Your task to perform on an android device: clear all cookies in the chrome app Image 0: 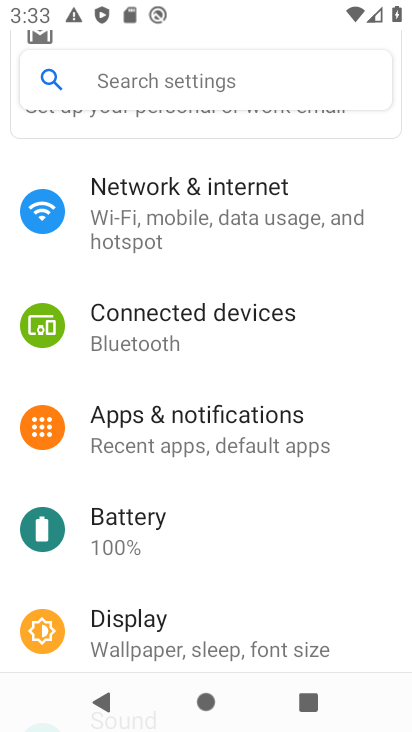
Step 0: press home button
Your task to perform on an android device: clear all cookies in the chrome app Image 1: 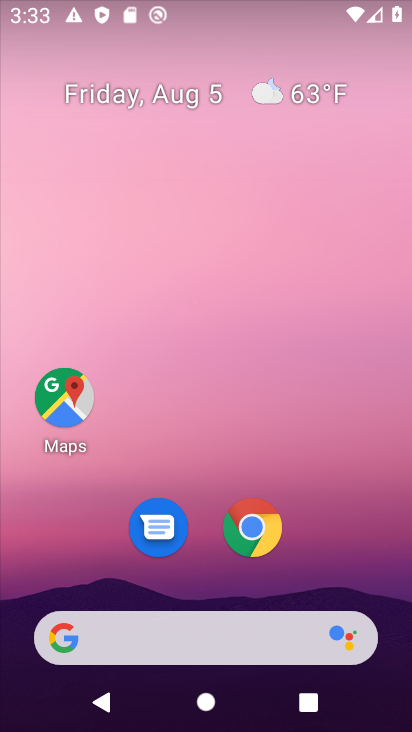
Step 1: drag from (221, 595) to (221, 84)
Your task to perform on an android device: clear all cookies in the chrome app Image 2: 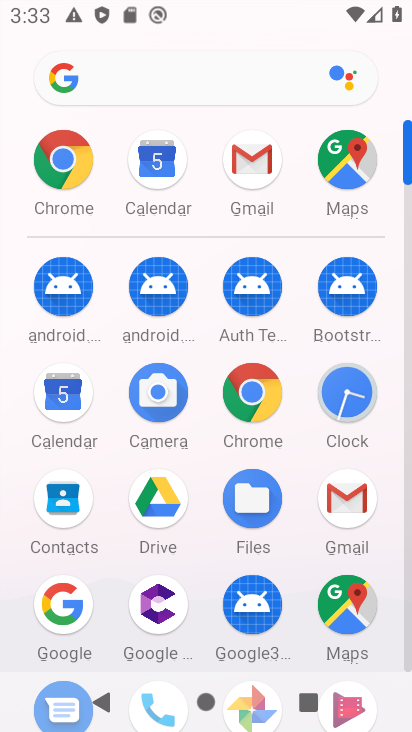
Step 2: click (255, 391)
Your task to perform on an android device: clear all cookies in the chrome app Image 3: 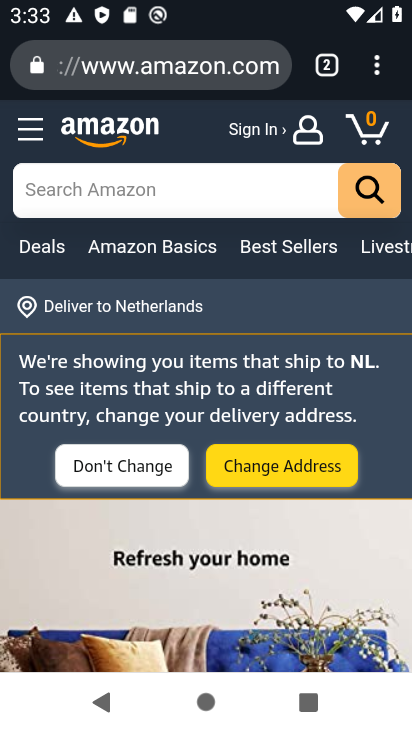
Step 3: click (378, 71)
Your task to perform on an android device: clear all cookies in the chrome app Image 4: 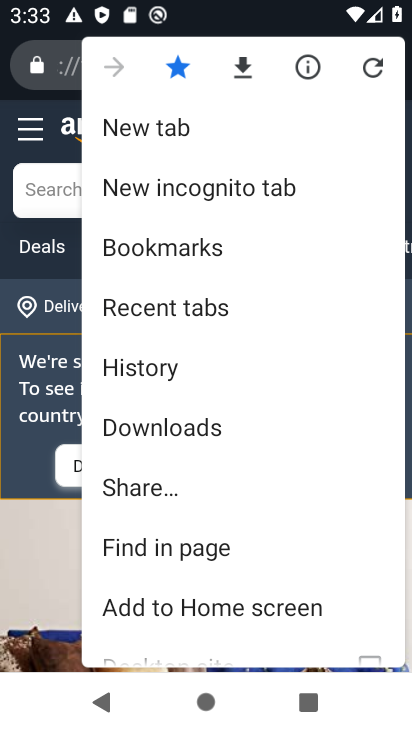
Step 4: drag from (175, 487) to (179, 209)
Your task to perform on an android device: clear all cookies in the chrome app Image 5: 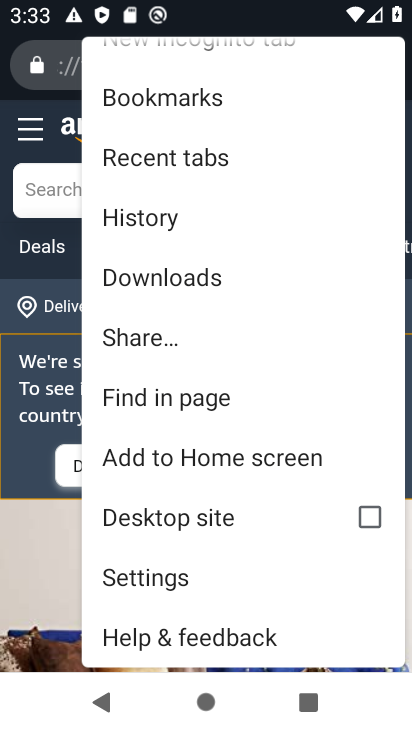
Step 5: click (156, 571)
Your task to perform on an android device: clear all cookies in the chrome app Image 6: 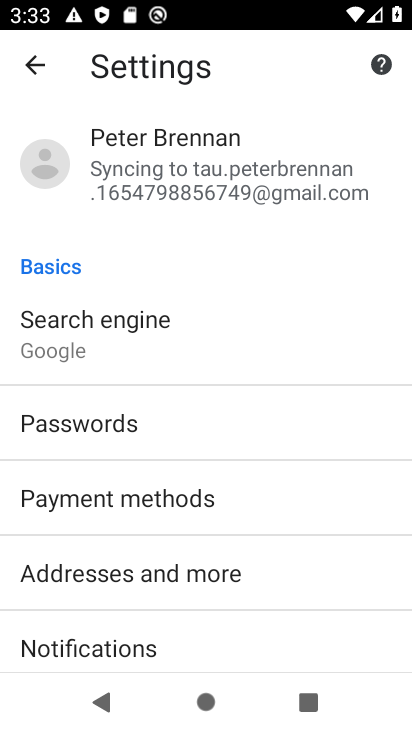
Step 6: drag from (149, 635) to (138, 277)
Your task to perform on an android device: clear all cookies in the chrome app Image 7: 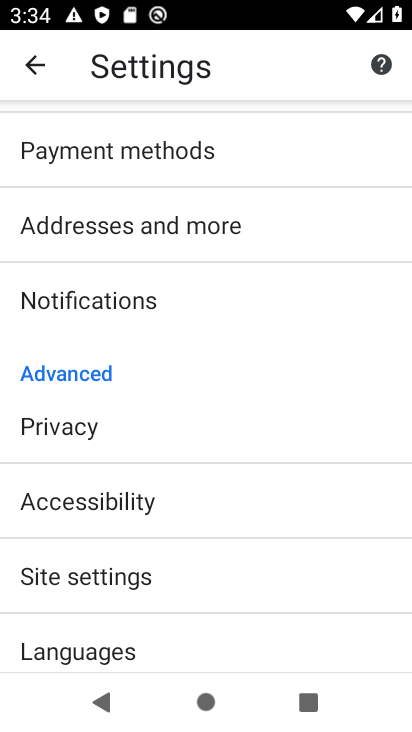
Step 7: drag from (137, 618) to (201, 294)
Your task to perform on an android device: clear all cookies in the chrome app Image 8: 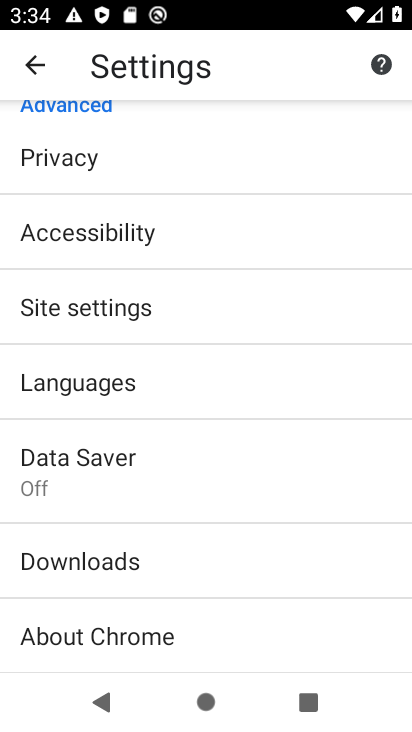
Step 8: drag from (177, 601) to (191, 341)
Your task to perform on an android device: clear all cookies in the chrome app Image 9: 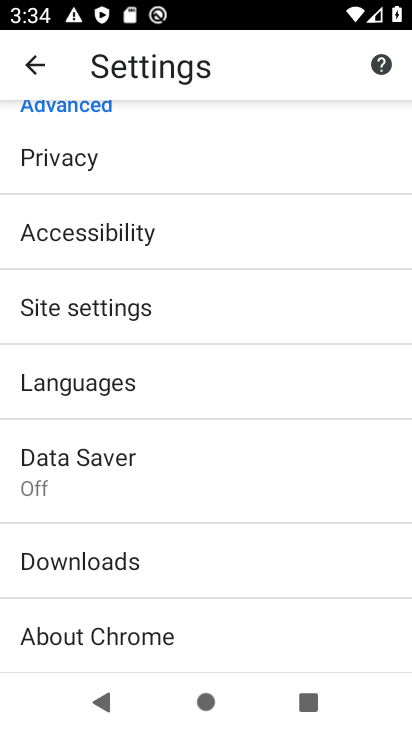
Step 9: drag from (165, 588) to (167, 286)
Your task to perform on an android device: clear all cookies in the chrome app Image 10: 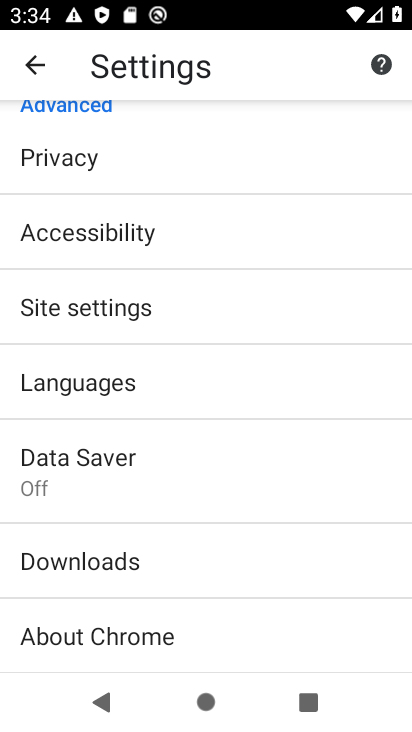
Step 10: drag from (123, 199) to (117, 609)
Your task to perform on an android device: clear all cookies in the chrome app Image 11: 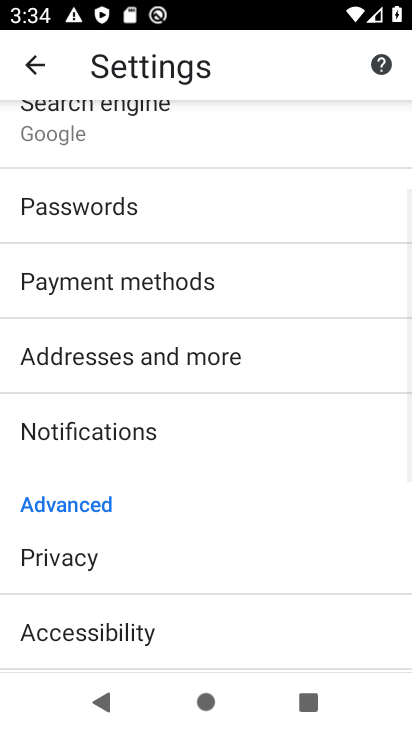
Step 11: drag from (158, 201) to (154, 348)
Your task to perform on an android device: clear all cookies in the chrome app Image 12: 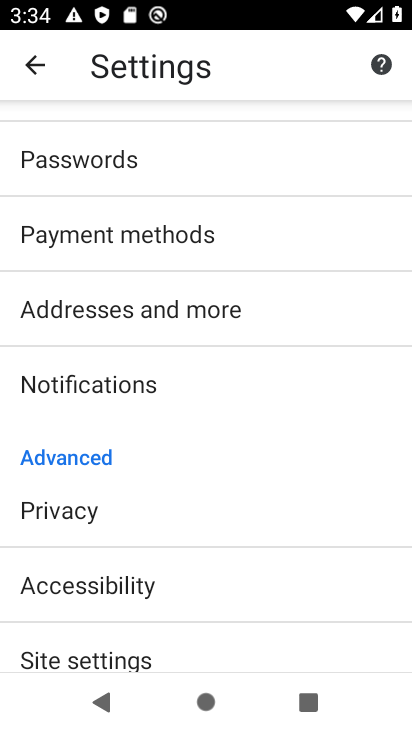
Step 12: click (75, 504)
Your task to perform on an android device: clear all cookies in the chrome app Image 13: 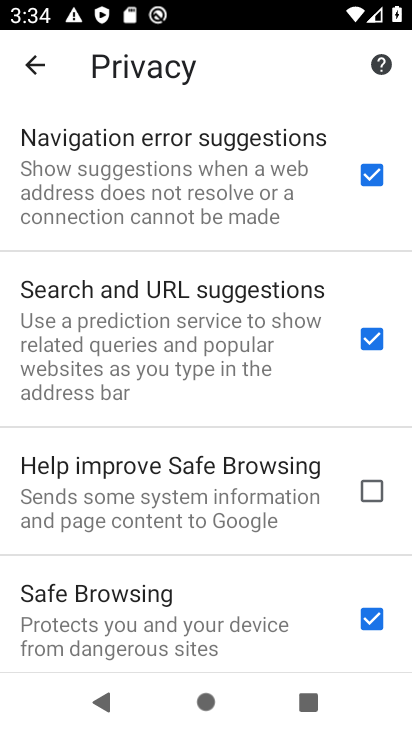
Step 13: drag from (200, 222) to (164, 607)
Your task to perform on an android device: clear all cookies in the chrome app Image 14: 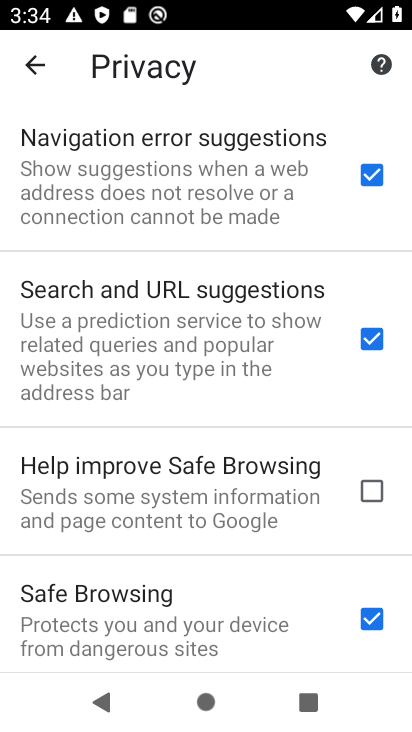
Step 14: drag from (257, 174) to (227, 591)
Your task to perform on an android device: clear all cookies in the chrome app Image 15: 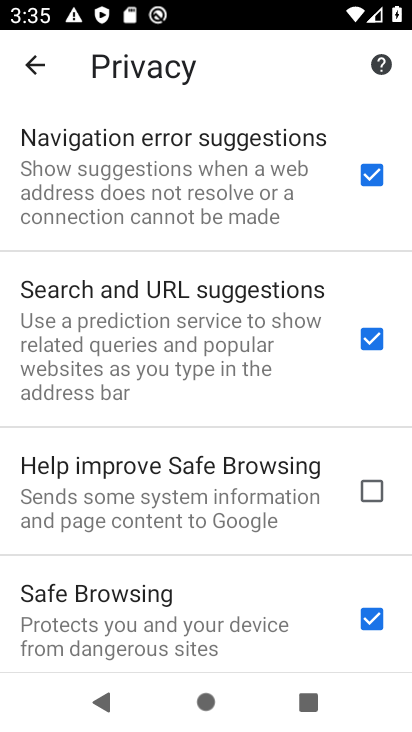
Step 15: drag from (128, 592) to (125, 225)
Your task to perform on an android device: clear all cookies in the chrome app Image 16: 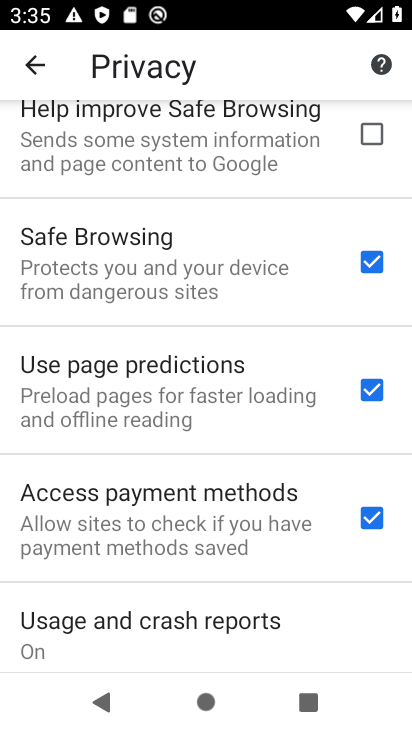
Step 16: drag from (144, 611) to (146, 299)
Your task to perform on an android device: clear all cookies in the chrome app Image 17: 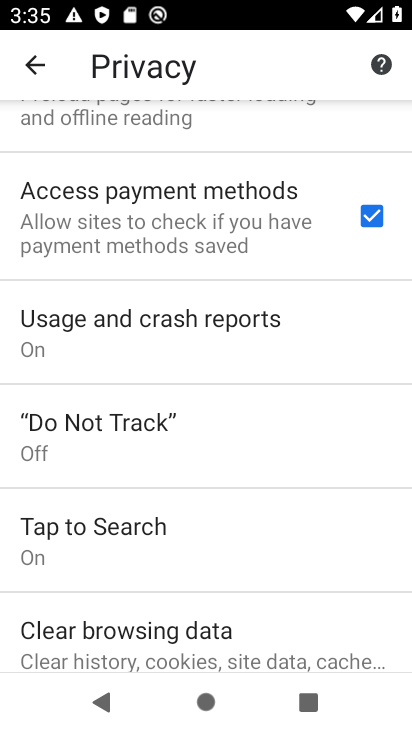
Step 17: drag from (131, 604) to (131, 382)
Your task to perform on an android device: clear all cookies in the chrome app Image 18: 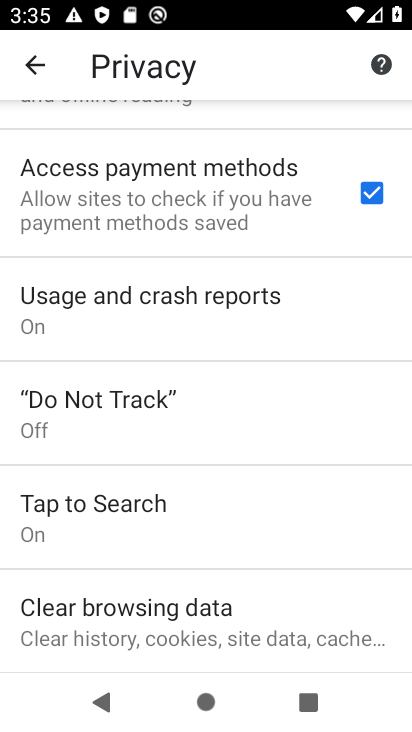
Step 18: click (147, 619)
Your task to perform on an android device: clear all cookies in the chrome app Image 19: 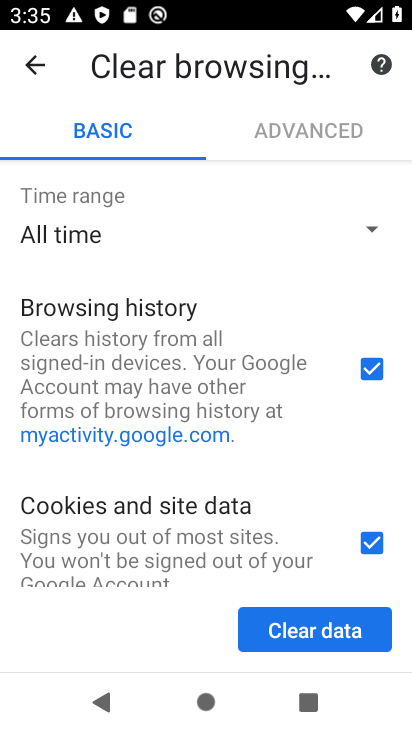
Step 19: drag from (277, 525) to (270, 402)
Your task to perform on an android device: clear all cookies in the chrome app Image 20: 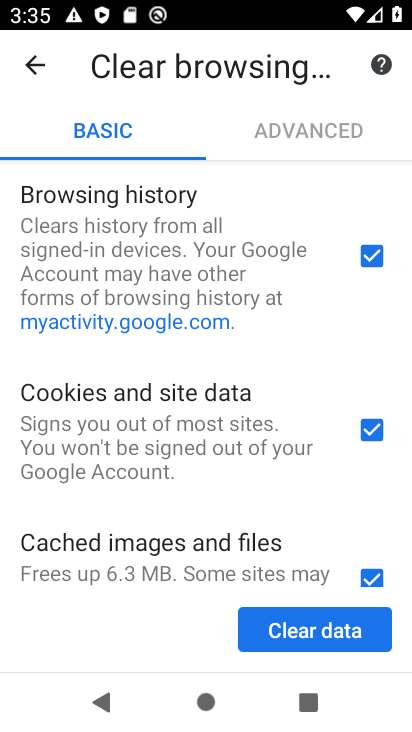
Step 20: click (373, 247)
Your task to perform on an android device: clear all cookies in the chrome app Image 21: 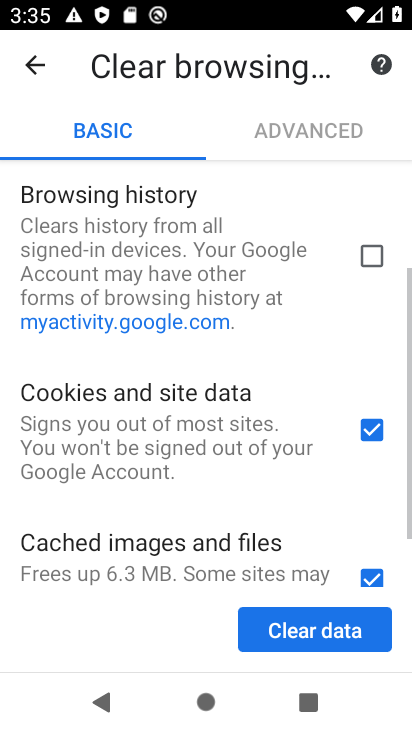
Step 21: click (376, 576)
Your task to perform on an android device: clear all cookies in the chrome app Image 22: 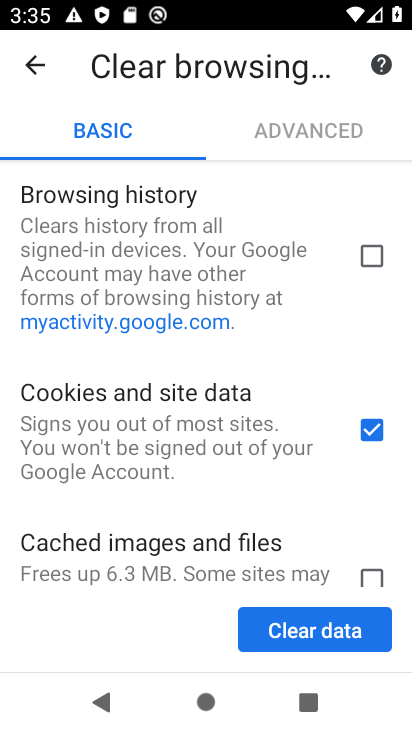
Step 22: click (335, 635)
Your task to perform on an android device: clear all cookies in the chrome app Image 23: 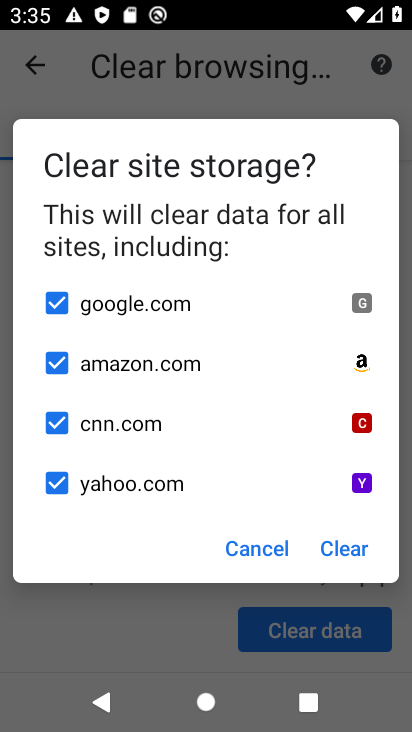
Step 23: click (356, 543)
Your task to perform on an android device: clear all cookies in the chrome app Image 24: 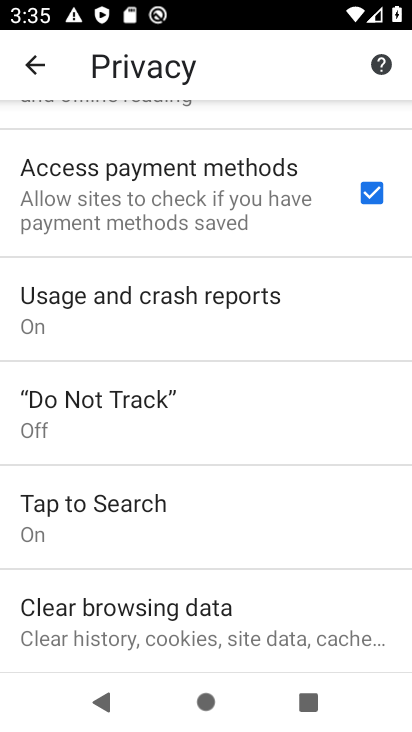
Step 24: task complete